Your task to perform on an android device: Set the phone to "Do not disturb". Image 0: 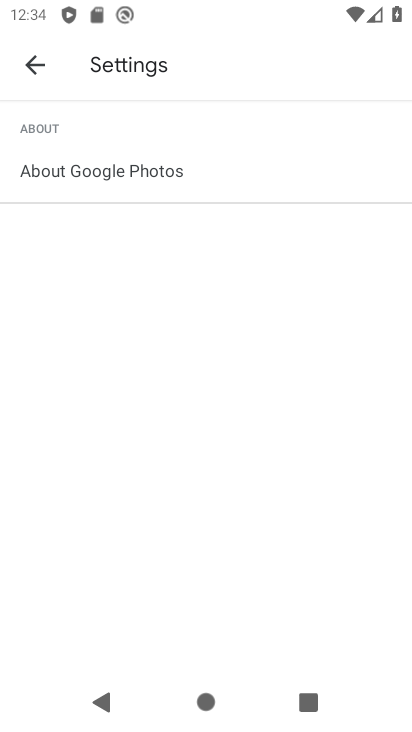
Step 0: press home button
Your task to perform on an android device: Set the phone to "Do not disturb". Image 1: 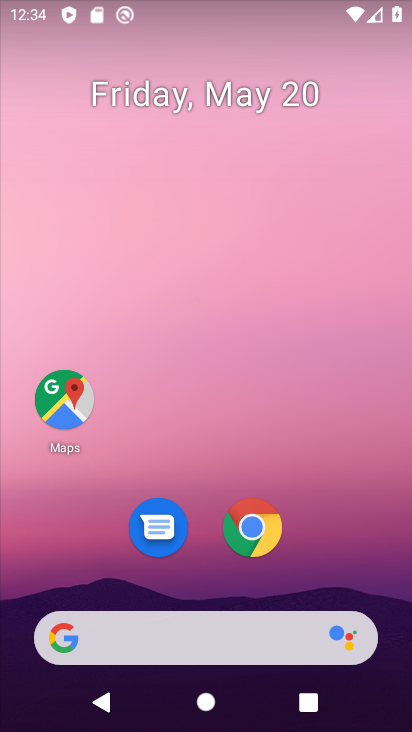
Step 1: drag from (399, 652) to (367, 175)
Your task to perform on an android device: Set the phone to "Do not disturb". Image 2: 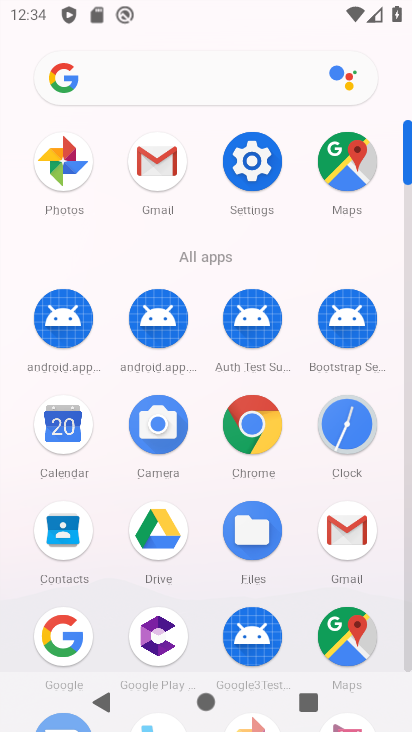
Step 2: click (243, 162)
Your task to perform on an android device: Set the phone to "Do not disturb". Image 3: 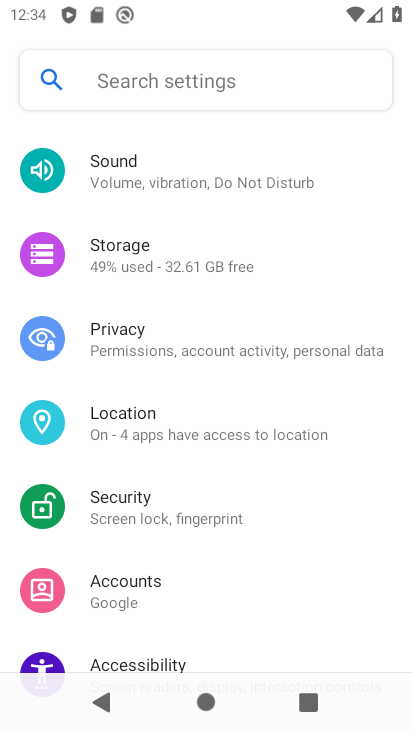
Step 3: drag from (369, 206) to (357, 587)
Your task to perform on an android device: Set the phone to "Do not disturb". Image 4: 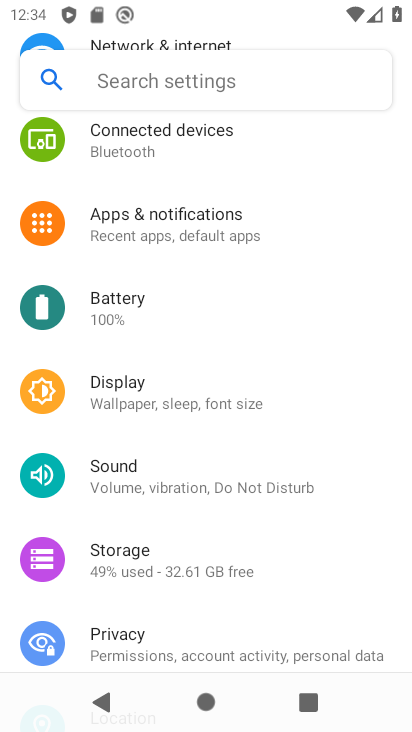
Step 4: click (125, 479)
Your task to perform on an android device: Set the phone to "Do not disturb". Image 5: 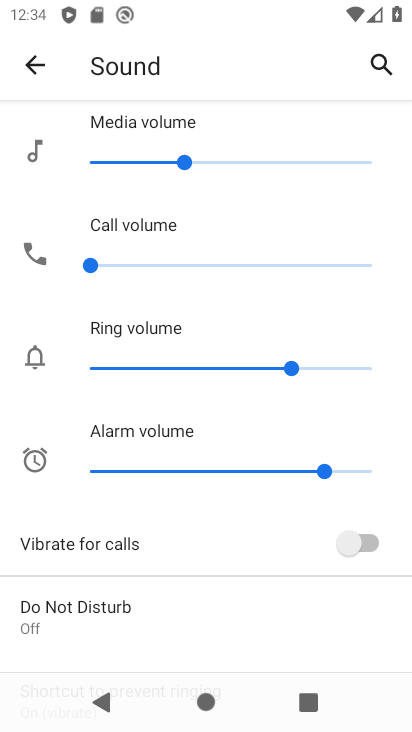
Step 5: drag from (238, 643) to (245, 350)
Your task to perform on an android device: Set the phone to "Do not disturb". Image 6: 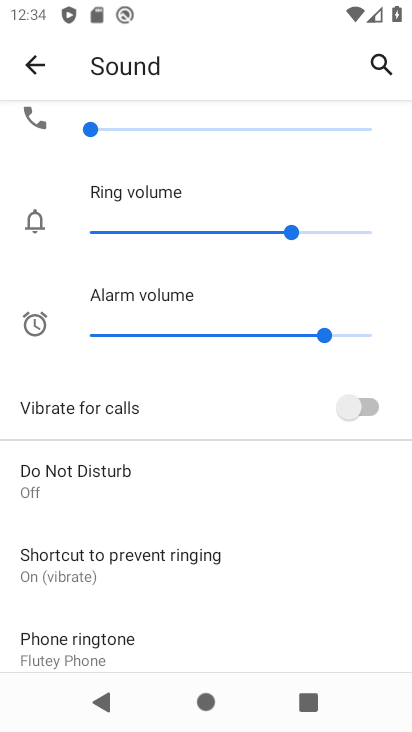
Step 6: click (77, 469)
Your task to perform on an android device: Set the phone to "Do not disturb". Image 7: 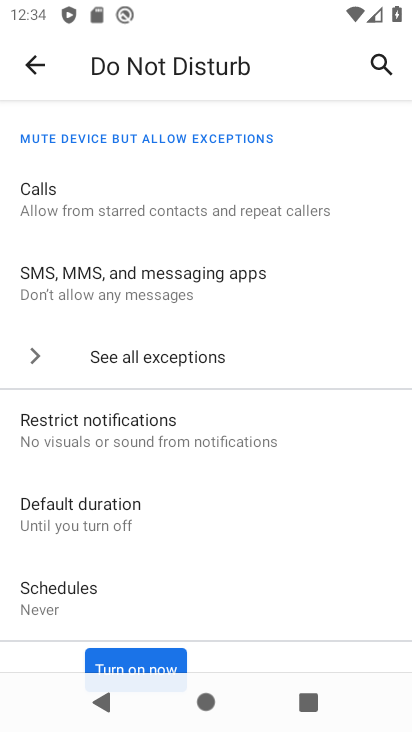
Step 7: drag from (257, 594) to (293, 378)
Your task to perform on an android device: Set the phone to "Do not disturb". Image 8: 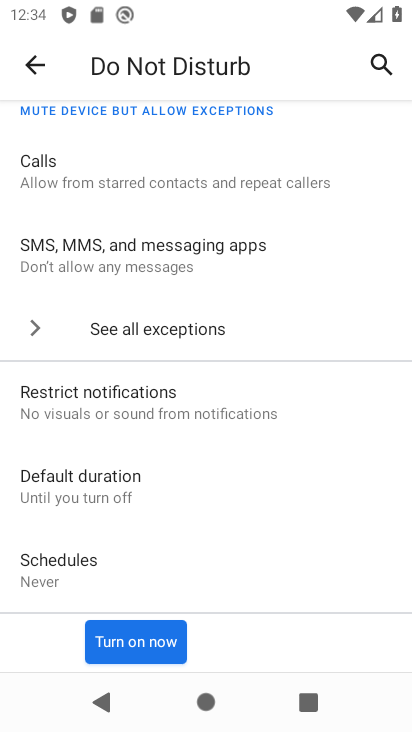
Step 8: drag from (296, 592) to (324, 396)
Your task to perform on an android device: Set the phone to "Do not disturb". Image 9: 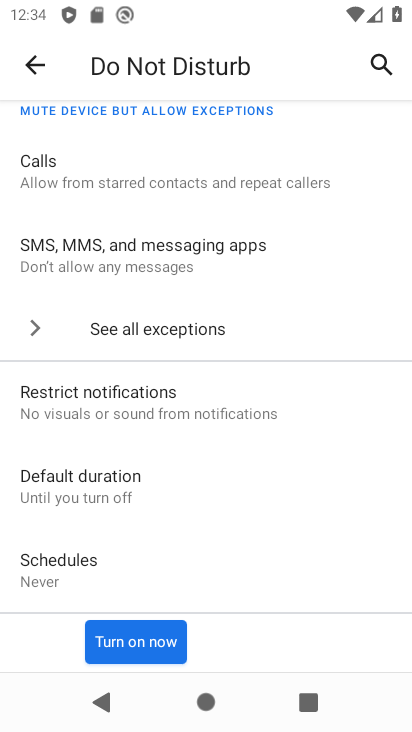
Step 9: click (163, 635)
Your task to perform on an android device: Set the phone to "Do not disturb". Image 10: 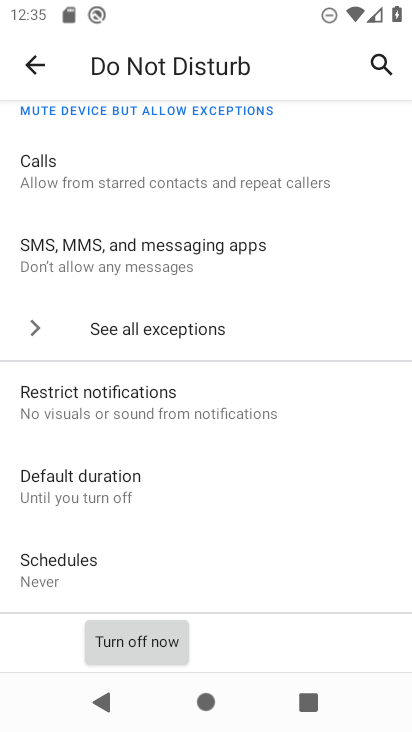
Step 10: task complete